Your task to perform on an android device: Open CNN.com Image 0: 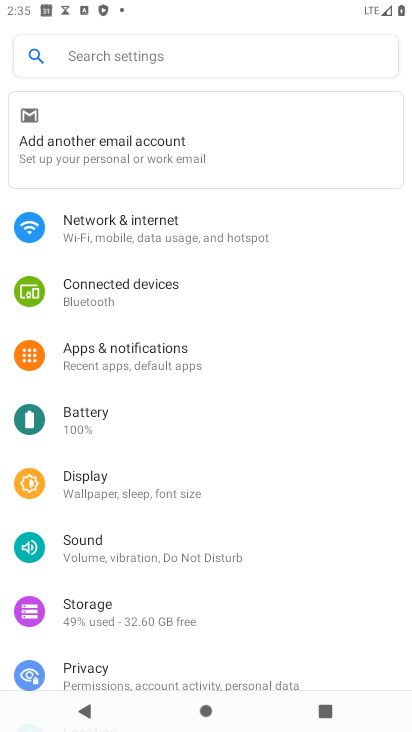
Step 0: press home button
Your task to perform on an android device: Open CNN.com Image 1: 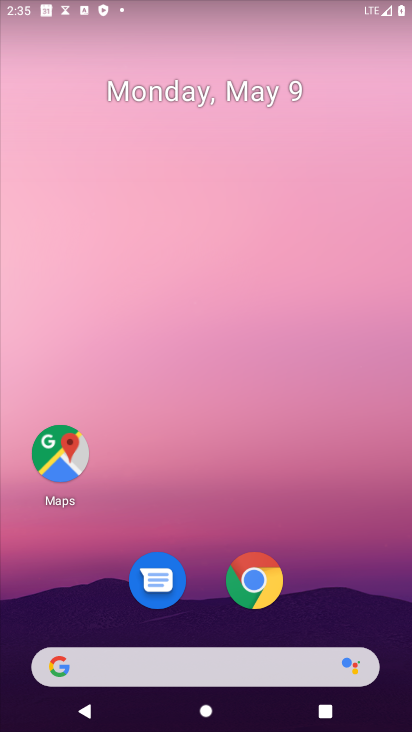
Step 1: click (254, 573)
Your task to perform on an android device: Open CNN.com Image 2: 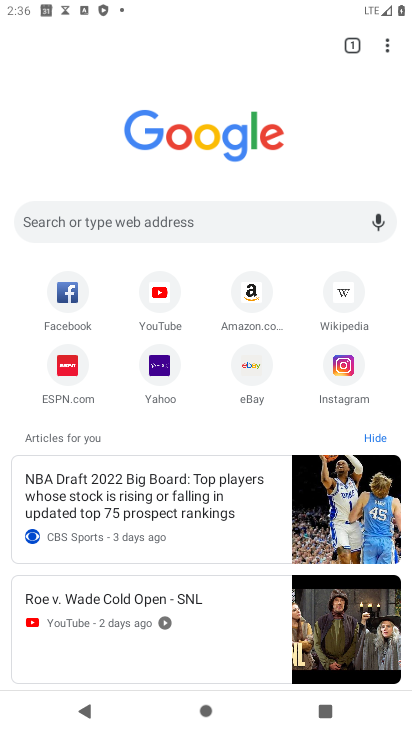
Step 2: click (195, 222)
Your task to perform on an android device: Open CNN.com Image 3: 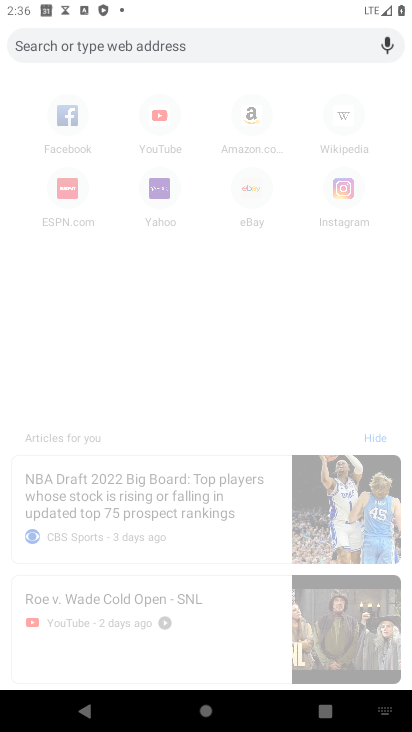
Step 3: type "CNN.com"
Your task to perform on an android device: Open CNN.com Image 4: 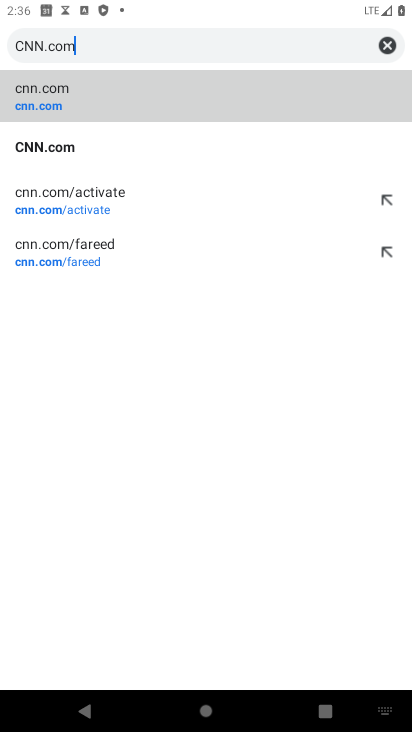
Step 4: click (169, 250)
Your task to perform on an android device: Open CNN.com Image 5: 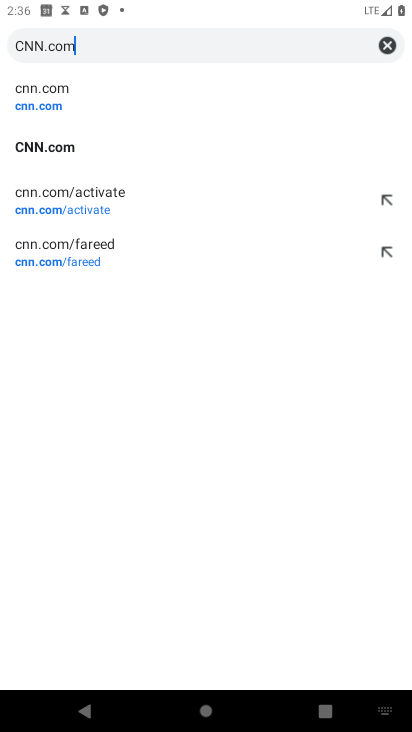
Step 5: click (115, 135)
Your task to perform on an android device: Open CNN.com Image 6: 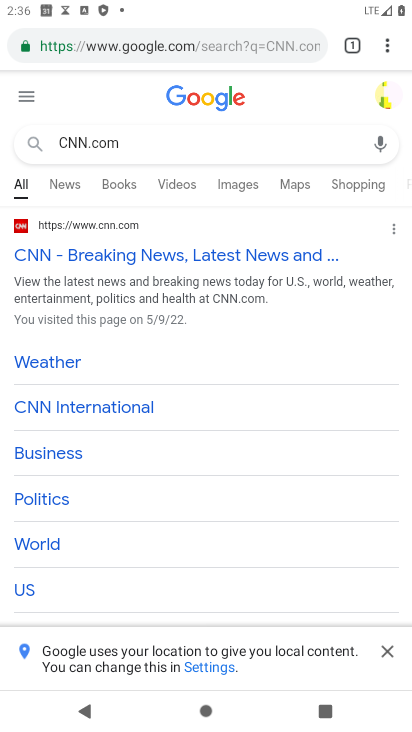
Step 6: task complete